Your task to perform on an android device: Go to Google maps Image 0: 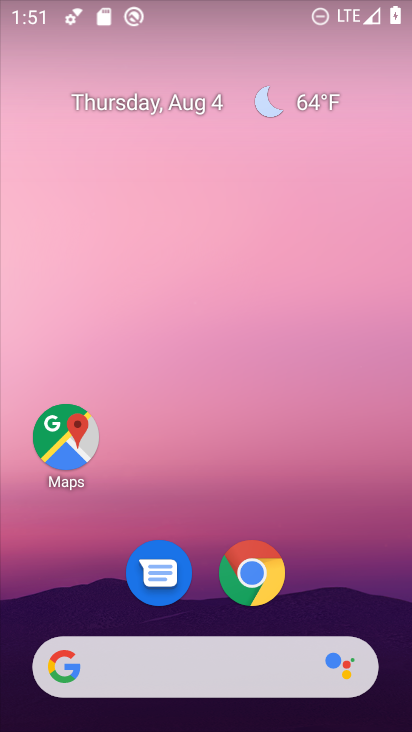
Step 0: drag from (346, 500) to (311, 51)
Your task to perform on an android device: Go to Google maps Image 1: 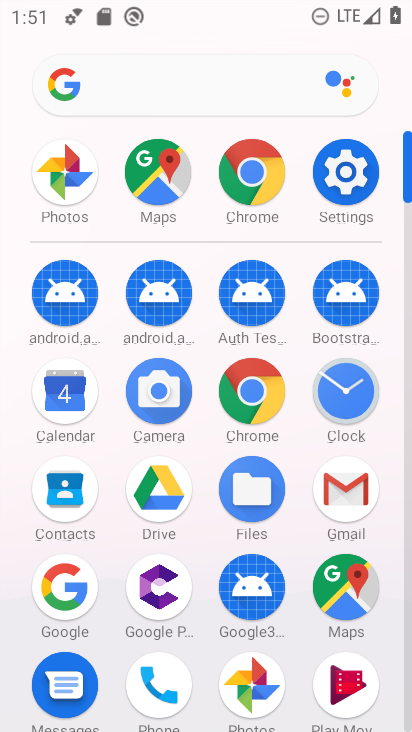
Step 1: click (339, 587)
Your task to perform on an android device: Go to Google maps Image 2: 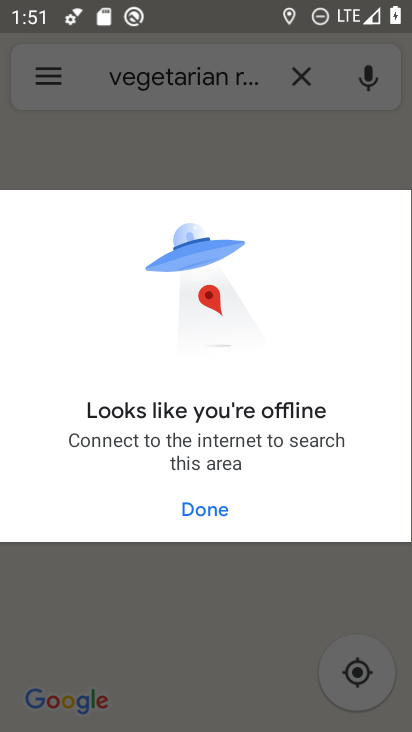
Step 2: task complete